Your task to perform on an android device: visit the assistant section in the google photos Image 0: 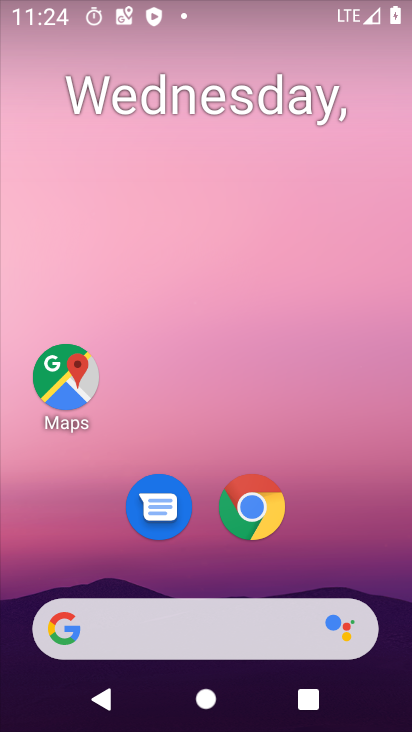
Step 0: drag from (218, 717) to (244, 88)
Your task to perform on an android device: visit the assistant section in the google photos Image 1: 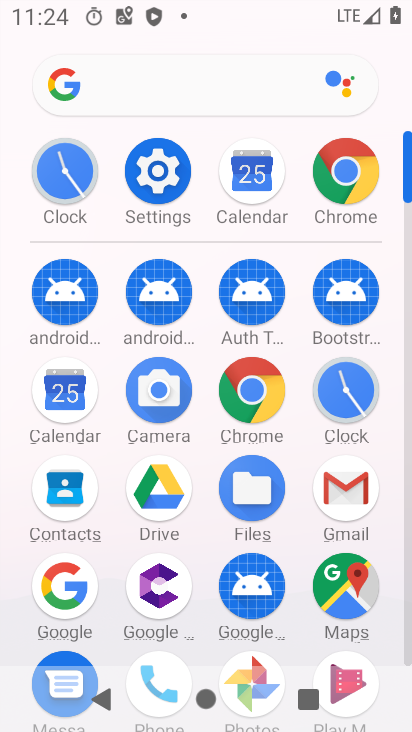
Step 1: click (240, 657)
Your task to perform on an android device: visit the assistant section in the google photos Image 2: 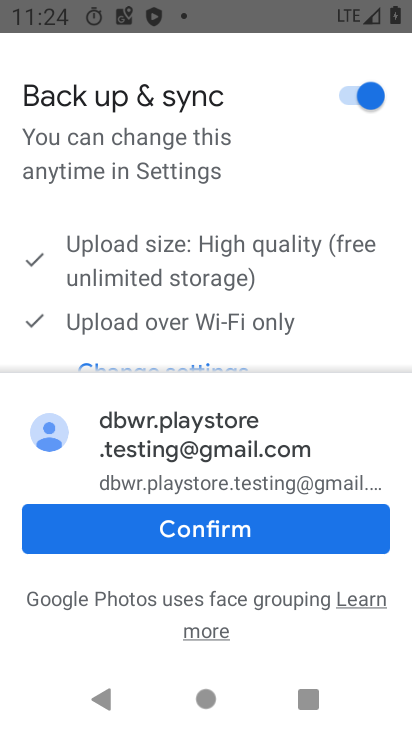
Step 2: click (204, 535)
Your task to perform on an android device: visit the assistant section in the google photos Image 3: 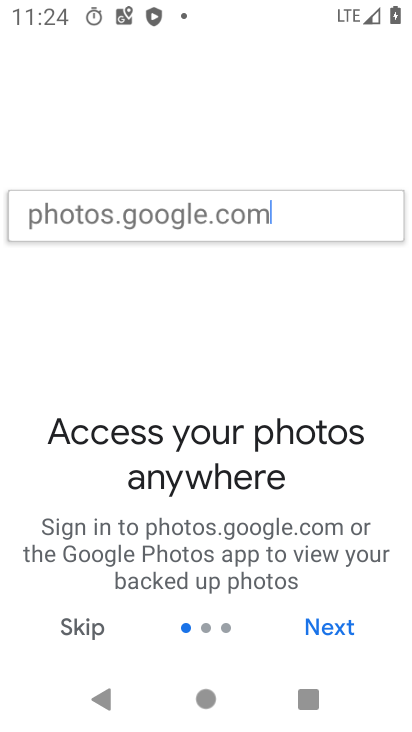
Step 3: click (328, 622)
Your task to perform on an android device: visit the assistant section in the google photos Image 4: 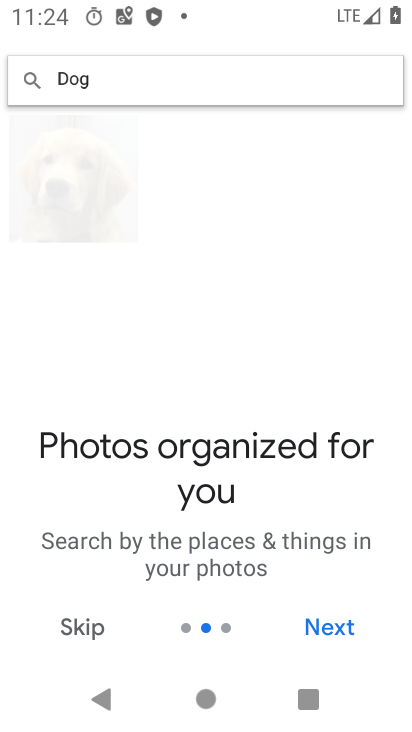
Step 4: click (328, 622)
Your task to perform on an android device: visit the assistant section in the google photos Image 5: 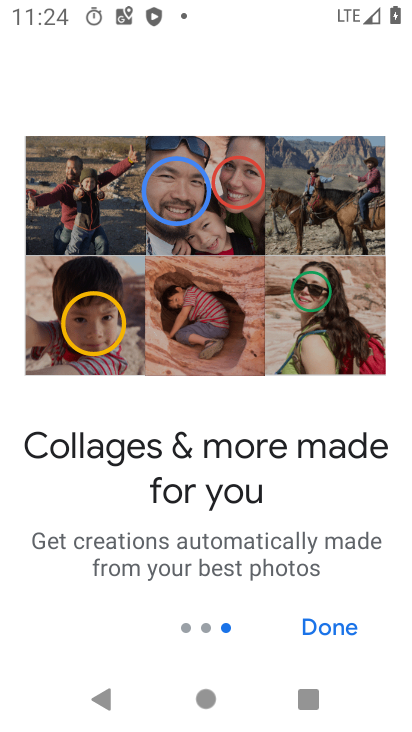
Step 5: click (328, 622)
Your task to perform on an android device: visit the assistant section in the google photos Image 6: 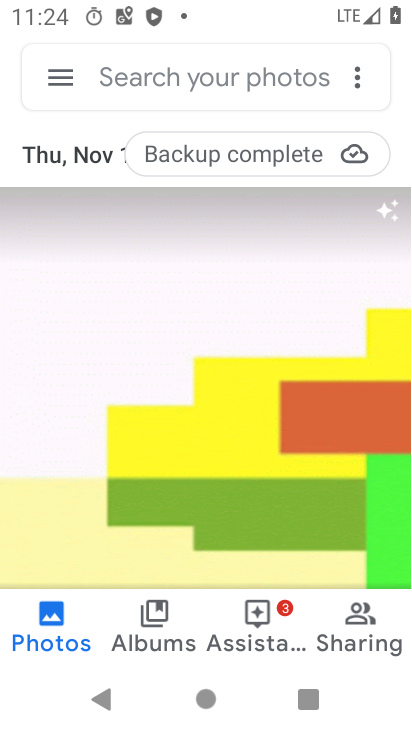
Step 6: click (258, 629)
Your task to perform on an android device: visit the assistant section in the google photos Image 7: 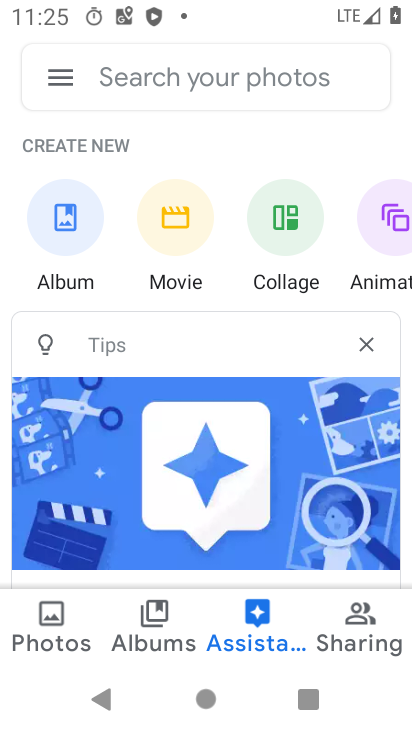
Step 7: task complete